Your task to perform on an android device: toggle show notifications on the lock screen Image 0: 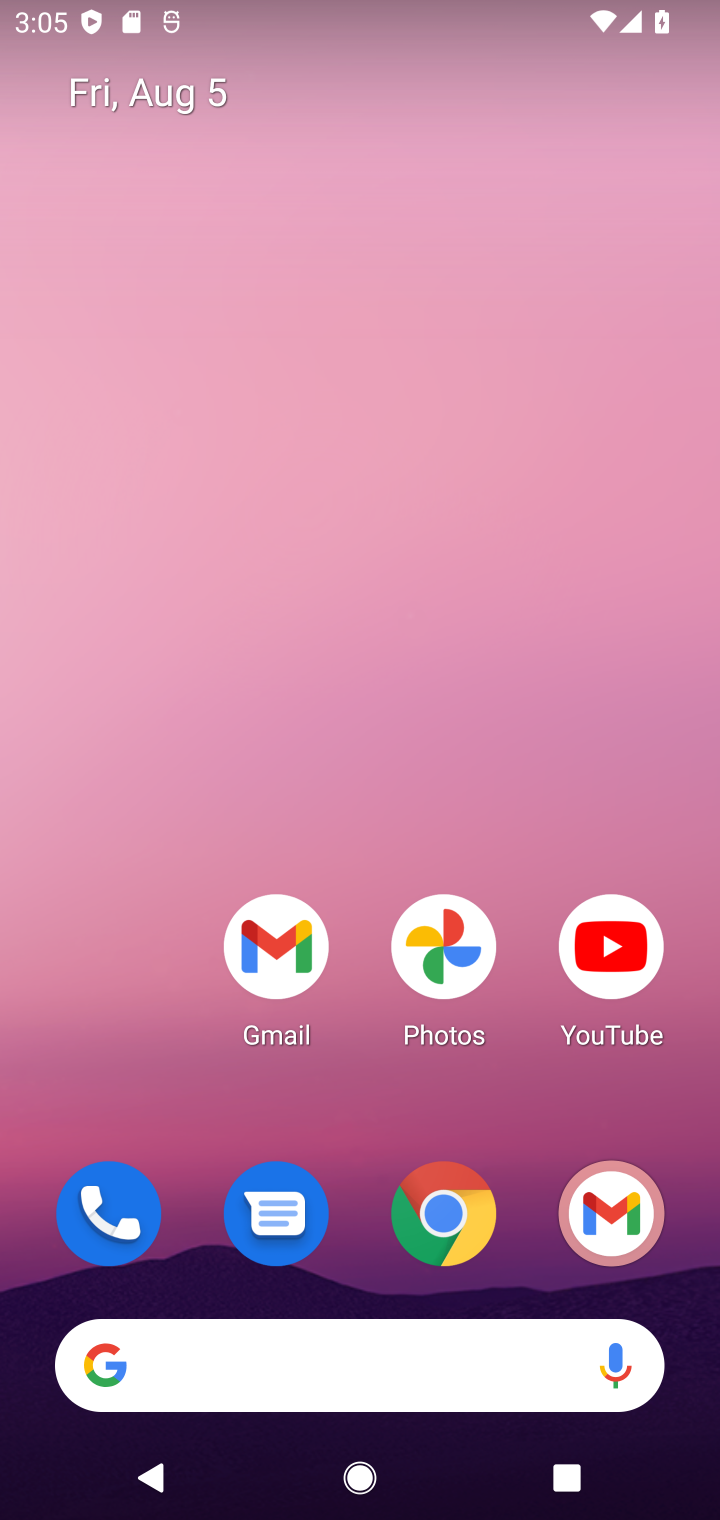
Step 0: drag from (153, 1072) to (250, 1)
Your task to perform on an android device: toggle show notifications on the lock screen Image 1: 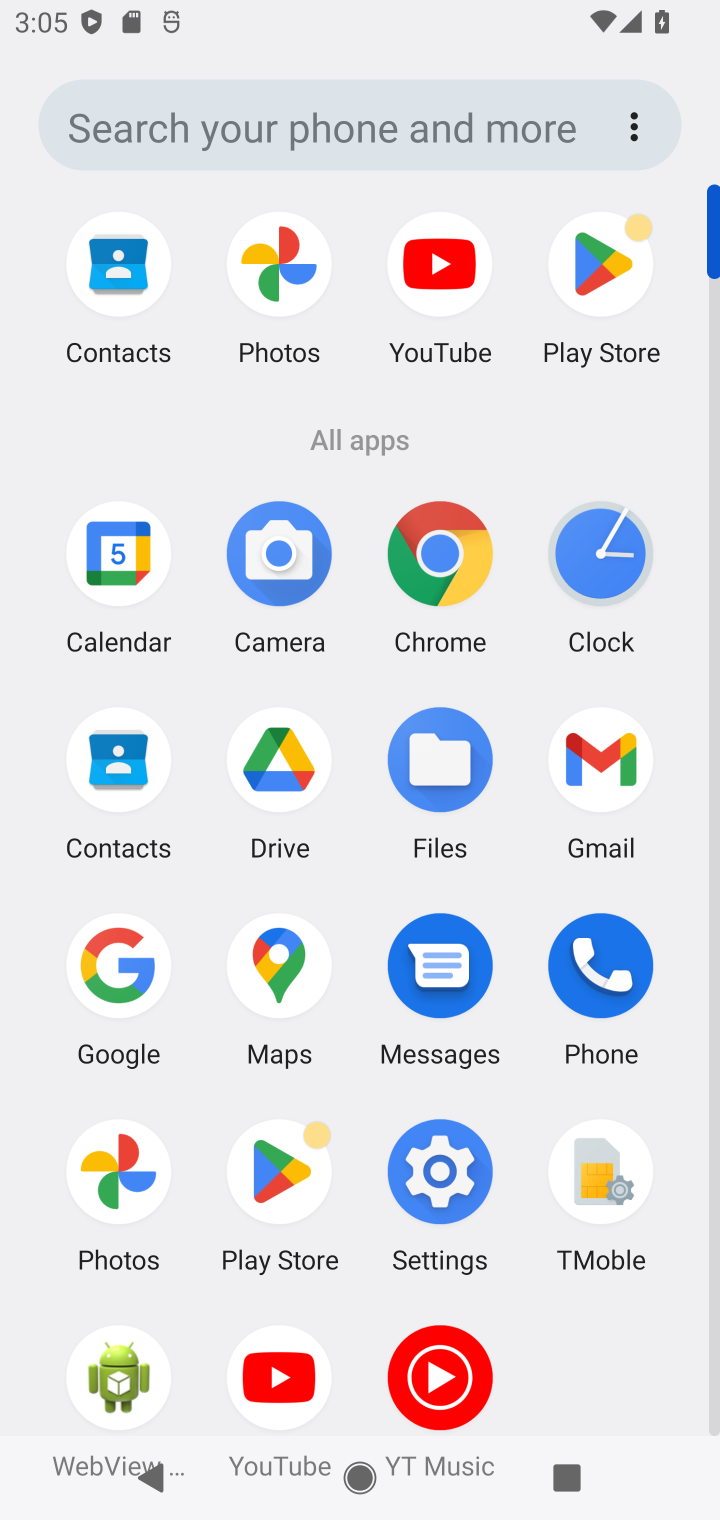
Step 1: click (424, 1174)
Your task to perform on an android device: toggle show notifications on the lock screen Image 2: 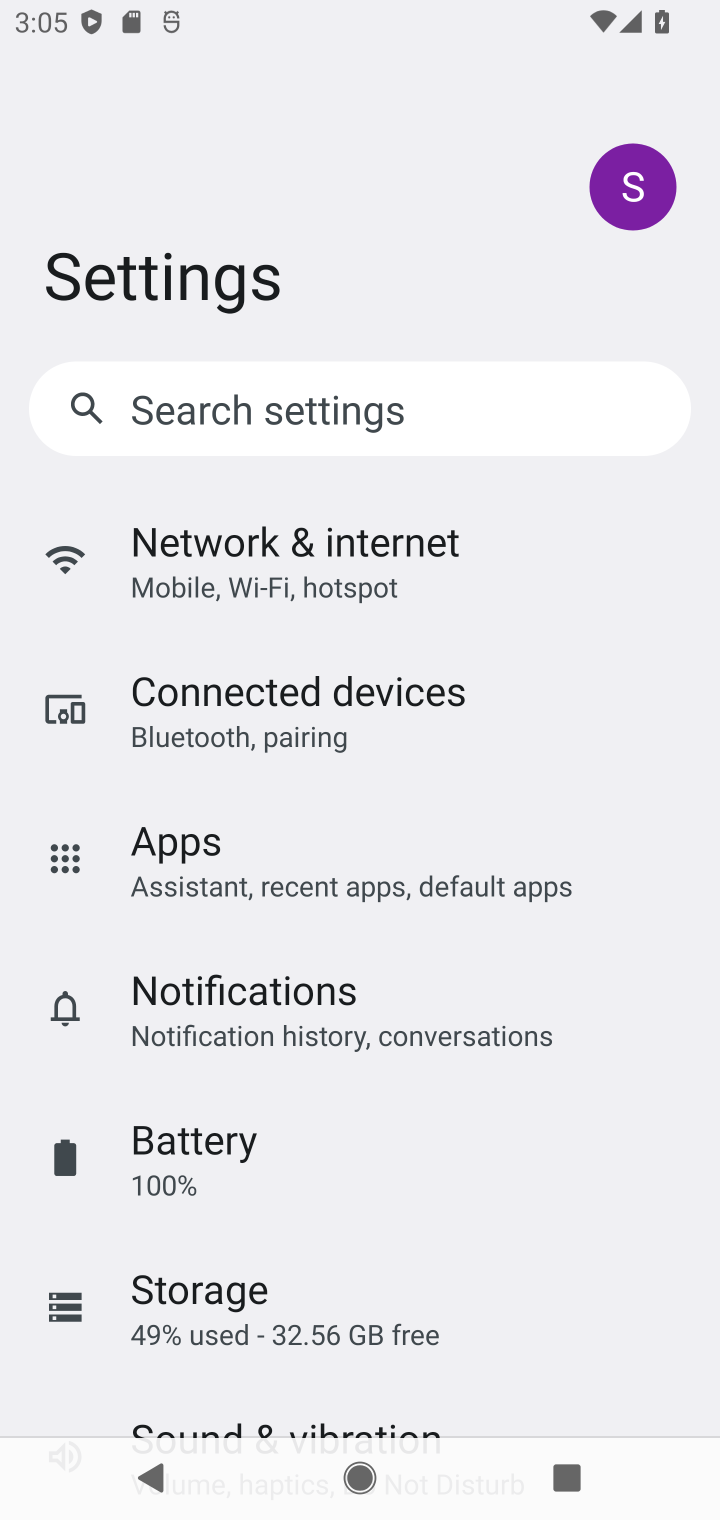
Step 2: click (380, 1026)
Your task to perform on an android device: toggle show notifications on the lock screen Image 3: 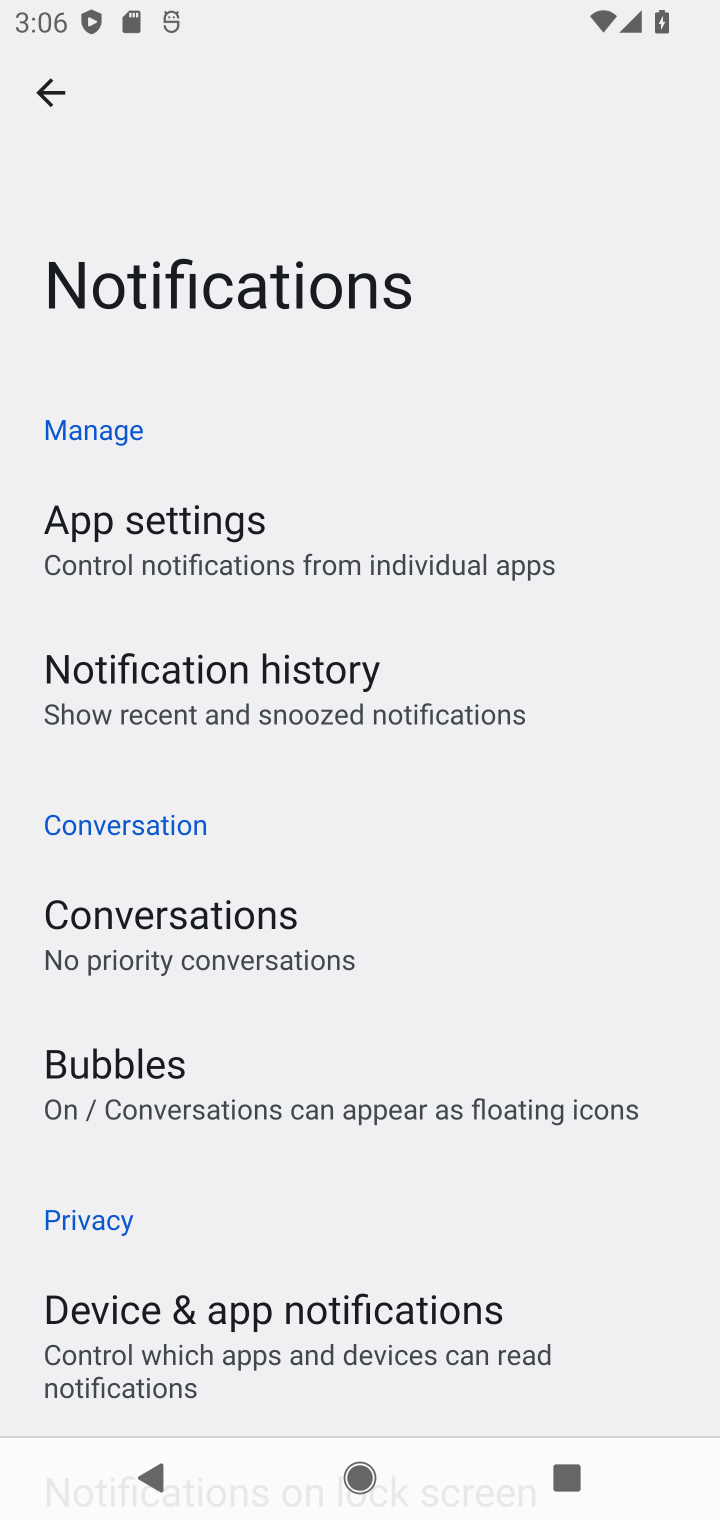
Step 3: drag from (396, 1214) to (403, 464)
Your task to perform on an android device: toggle show notifications on the lock screen Image 4: 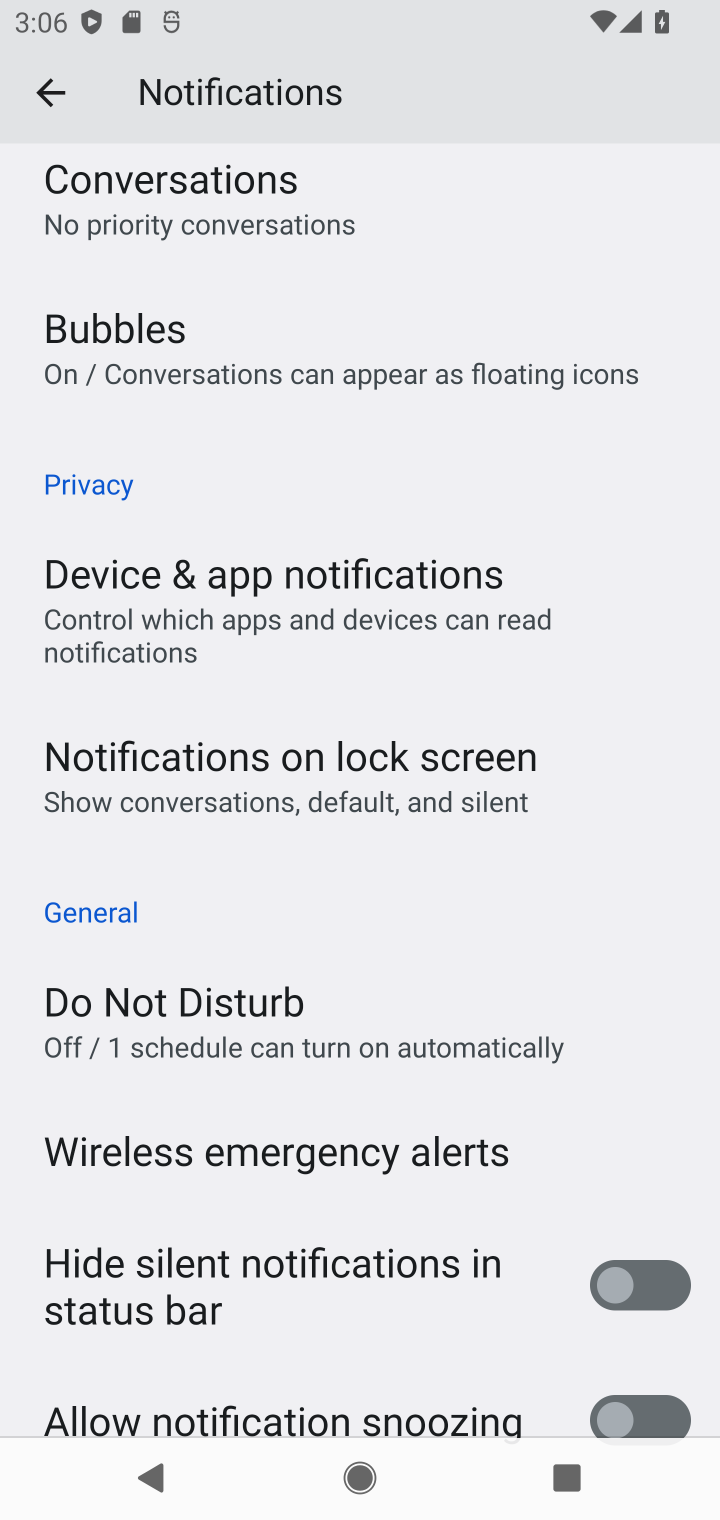
Step 4: click (381, 782)
Your task to perform on an android device: toggle show notifications on the lock screen Image 5: 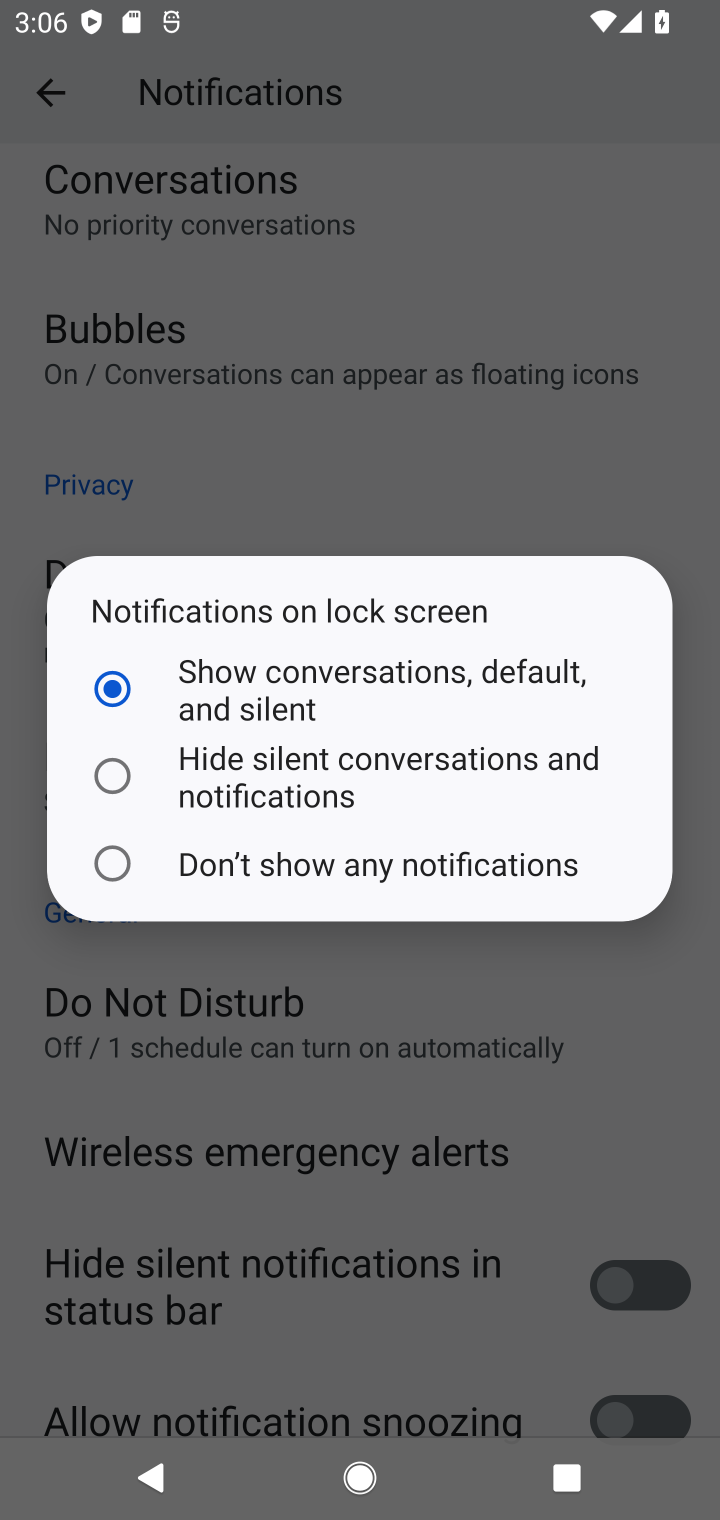
Step 5: click (368, 678)
Your task to perform on an android device: toggle show notifications on the lock screen Image 6: 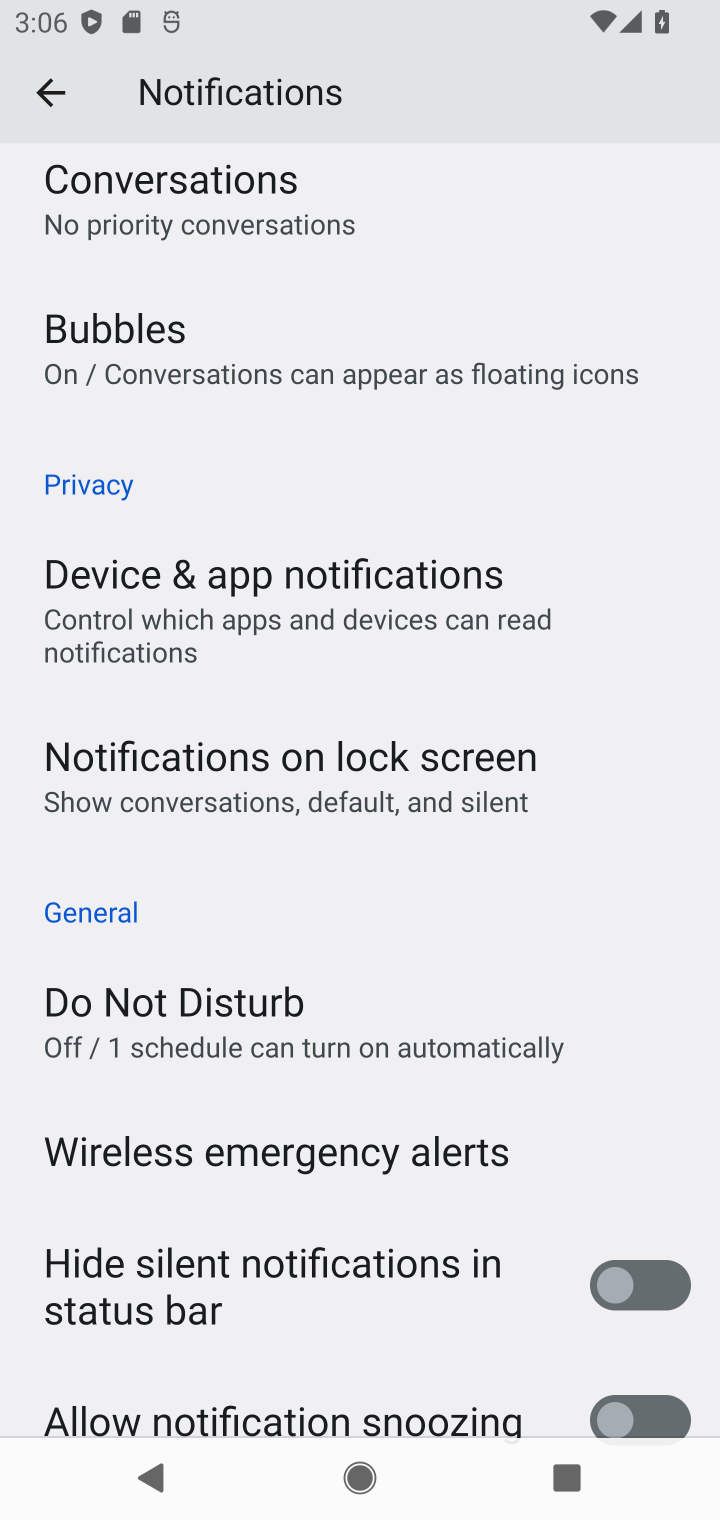
Step 6: task complete